Your task to perform on an android device: turn off data saver in the chrome app Image 0: 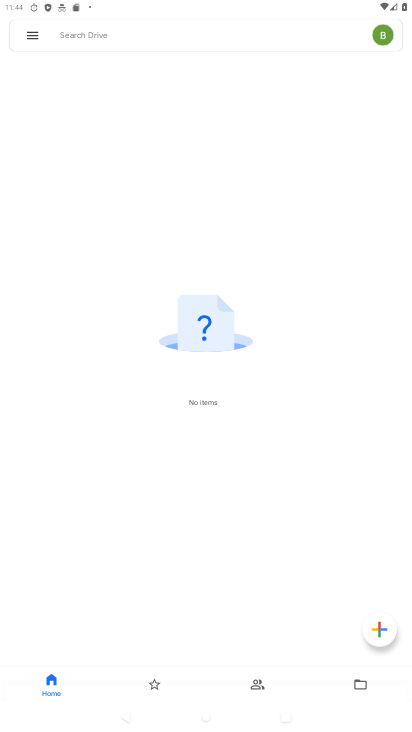
Step 0: press home button
Your task to perform on an android device: turn off data saver in the chrome app Image 1: 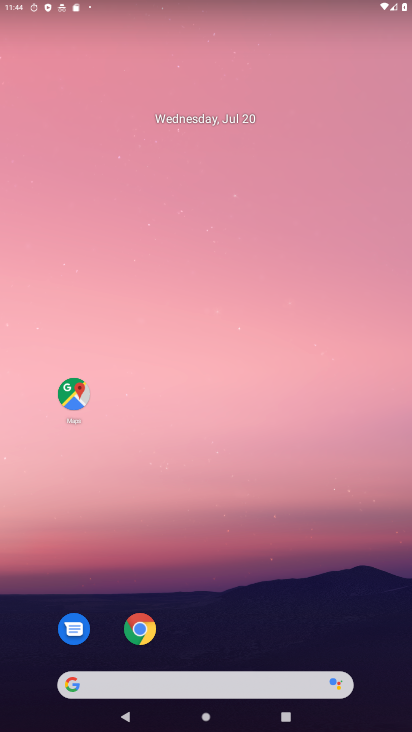
Step 1: drag from (216, 691) to (239, 120)
Your task to perform on an android device: turn off data saver in the chrome app Image 2: 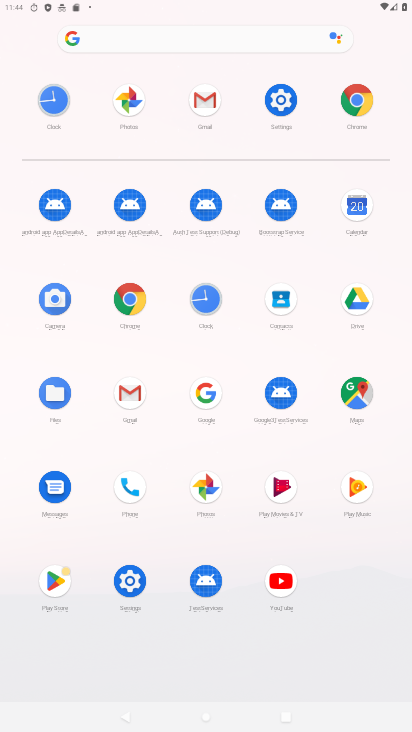
Step 2: click (127, 299)
Your task to perform on an android device: turn off data saver in the chrome app Image 3: 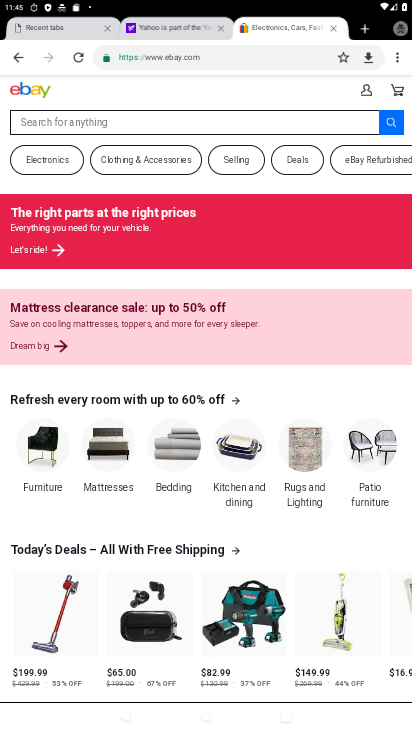
Step 3: drag from (396, 59) to (304, 376)
Your task to perform on an android device: turn off data saver in the chrome app Image 4: 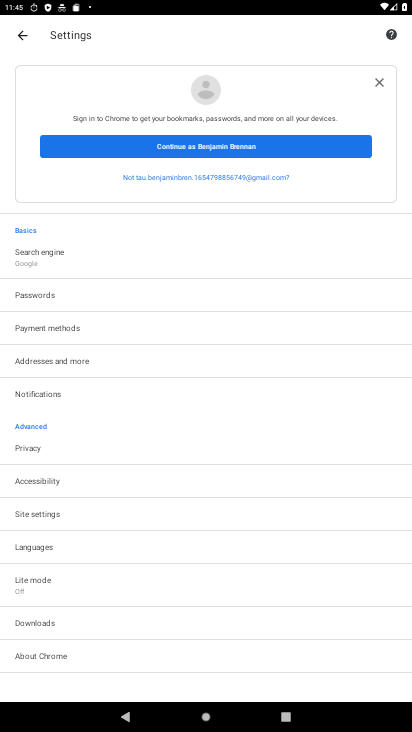
Step 4: click (48, 578)
Your task to perform on an android device: turn off data saver in the chrome app Image 5: 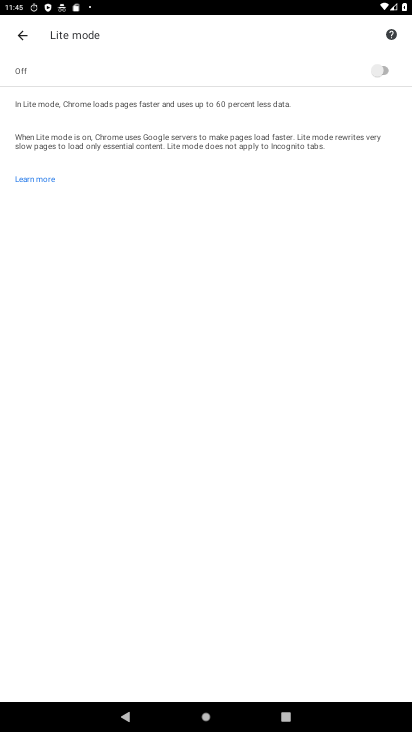
Step 5: task complete